Your task to perform on an android device: turn on javascript in the chrome app Image 0: 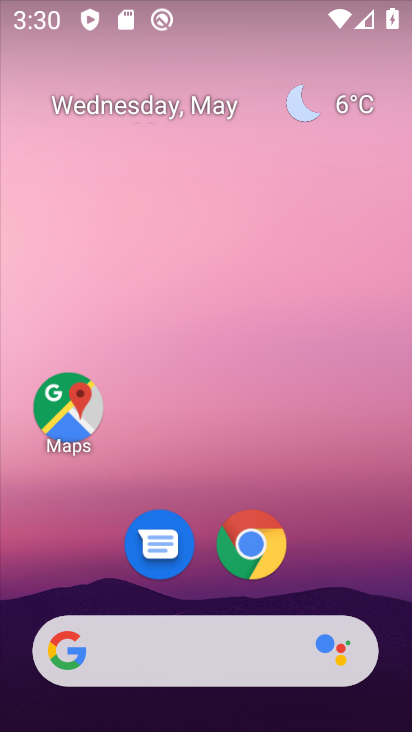
Step 0: click (249, 534)
Your task to perform on an android device: turn on javascript in the chrome app Image 1: 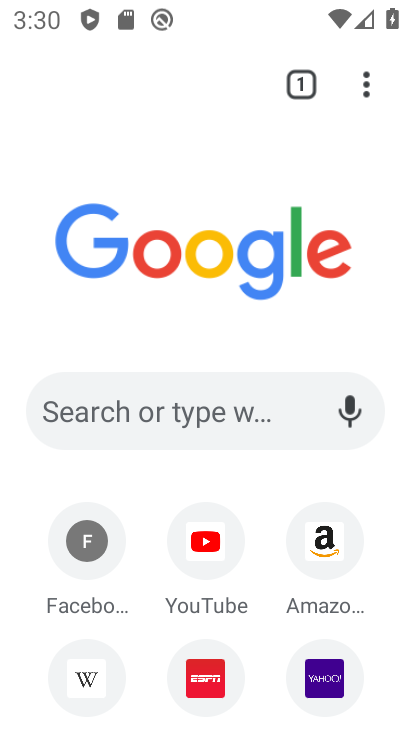
Step 1: click (357, 79)
Your task to perform on an android device: turn on javascript in the chrome app Image 2: 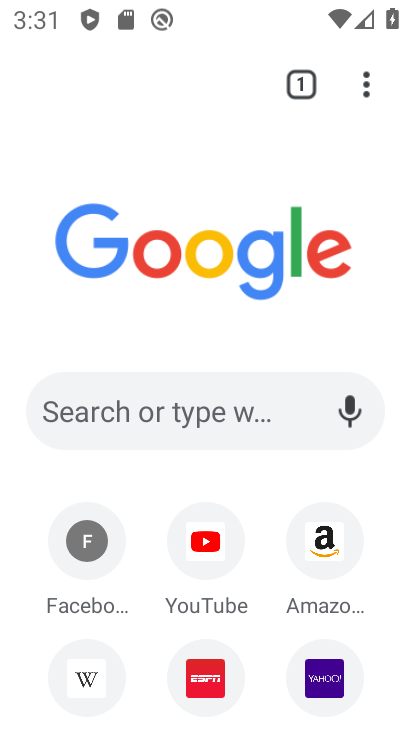
Step 2: click (366, 88)
Your task to perform on an android device: turn on javascript in the chrome app Image 3: 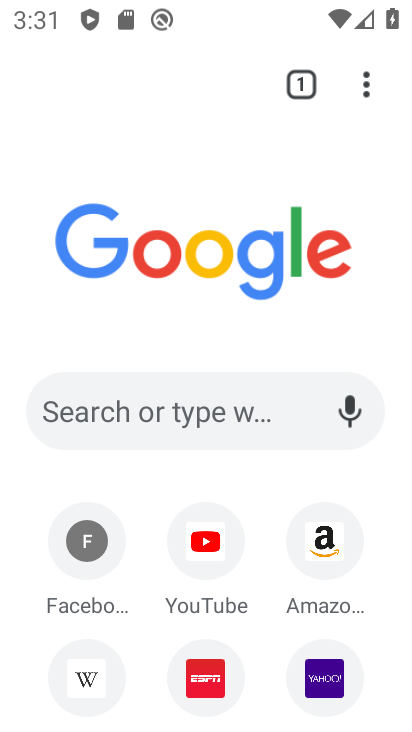
Step 3: click (372, 88)
Your task to perform on an android device: turn on javascript in the chrome app Image 4: 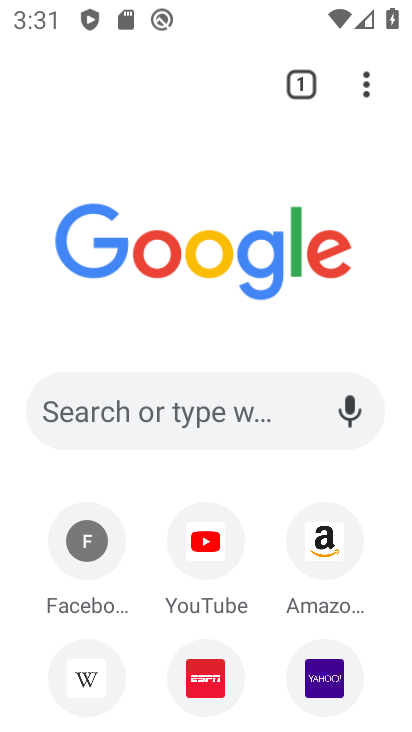
Step 4: click (372, 88)
Your task to perform on an android device: turn on javascript in the chrome app Image 5: 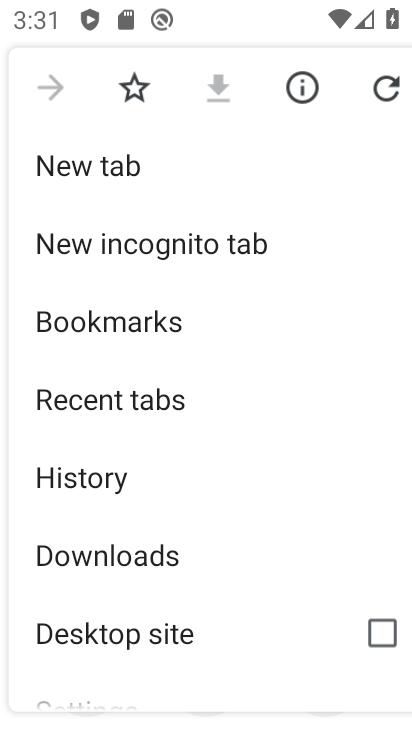
Step 5: drag from (192, 651) to (357, 63)
Your task to perform on an android device: turn on javascript in the chrome app Image 6: 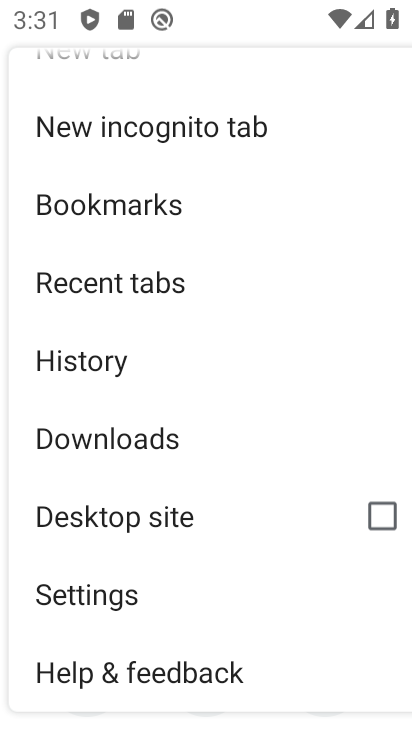
Step 6: click (118, 601)
Your task to perform on an android device: turn on javascript in the chrome app Image 7: 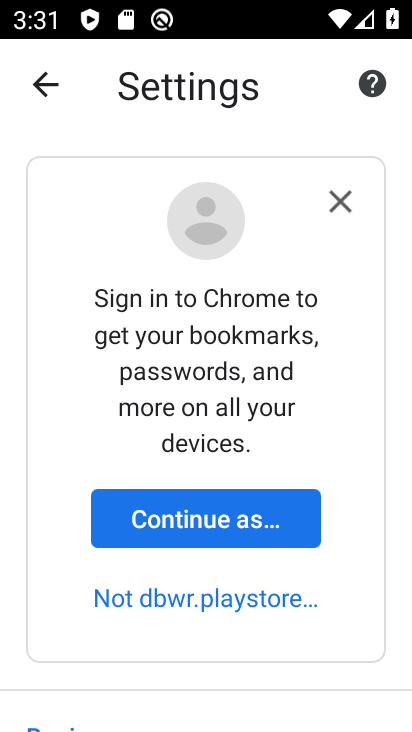
Step 7: click (337, 205)
Your task to perform on an android device: turn on javascript in the chrome app Image 8: 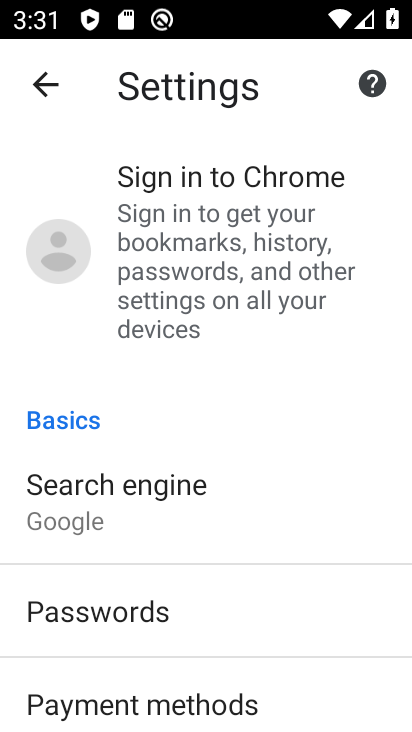
Step 8: drag from (178, 698) to (356, 185)
Your task to perform on an android device: turn on javascript in the chrome app Image 9: 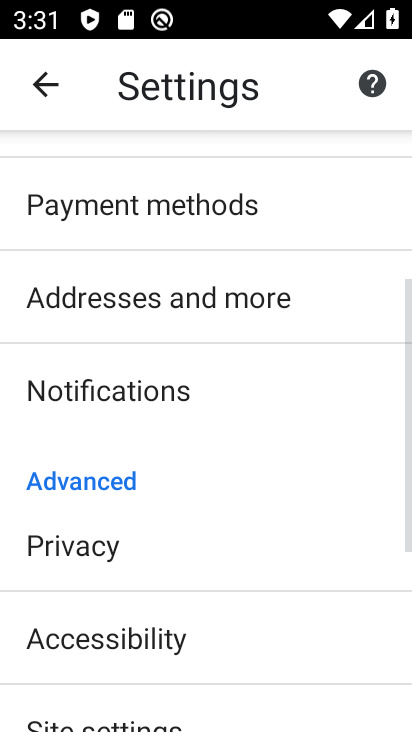
Step 9: drag from (97, 680) to (271, 237)
Your task to perform on an android device: turn on javascript in the chrome app Image 10: 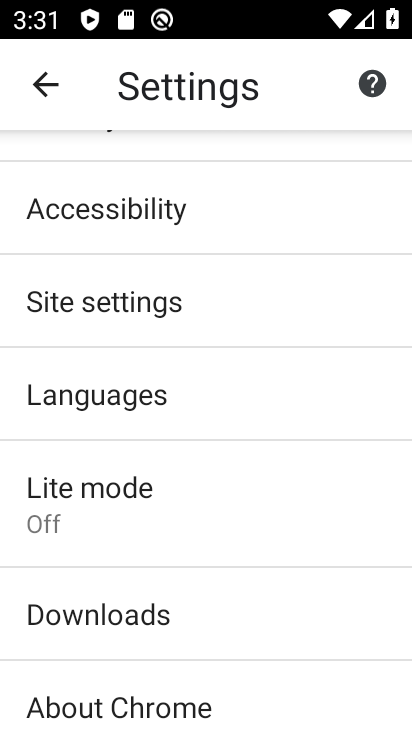
Step 10: click (141, 308)
Your task to perform on an android device: turn on javascript in the chrome app Image 11: 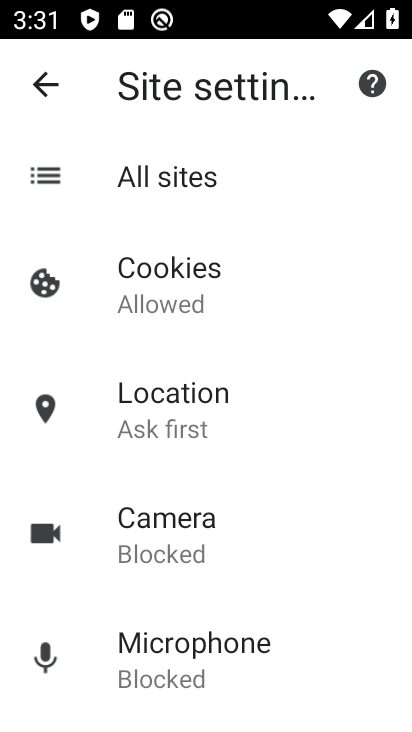
Step 11: drag from (114, 686) to (299, 174)
Your task to perform on an android device: turn on javascript in the chrome app Image 12: 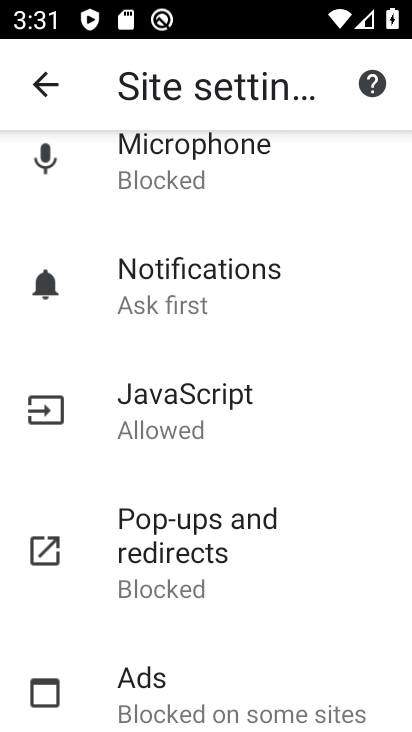
Step 12: click (164, 398)
Your task to perform on an android device: turn on javascript in the chrome app Image 13: 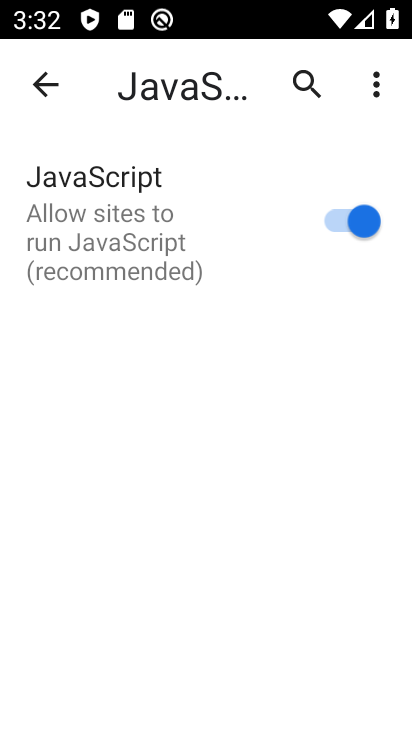
Step 13: task complete